Your task to perform on an android device: turn off wifi Image 0: 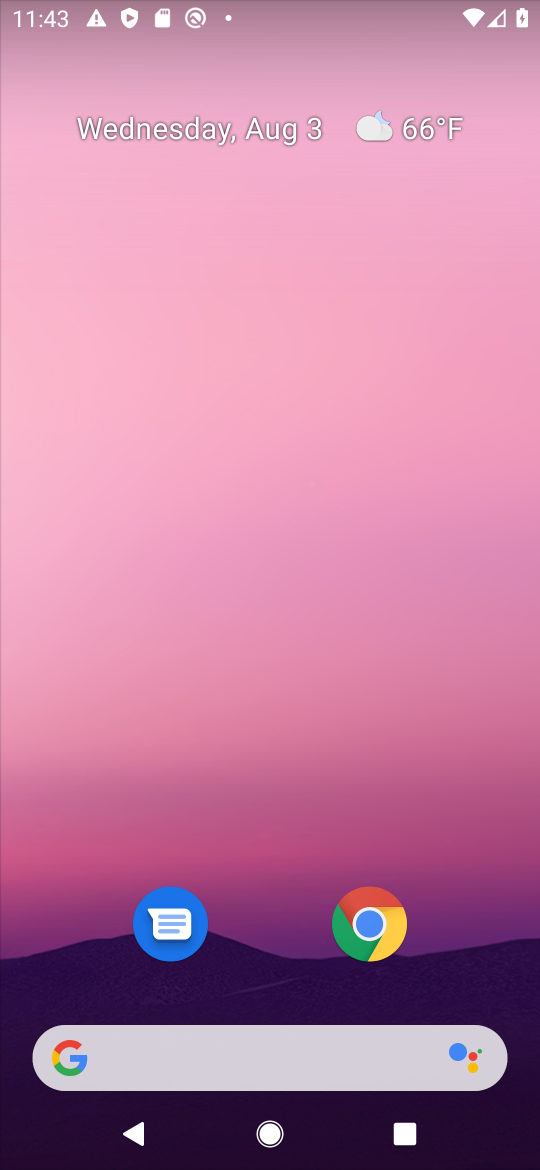
Step 0: drag from (63, 928) to (362, 59)
Your task to perform on an android device: turn off wifi Image 1: 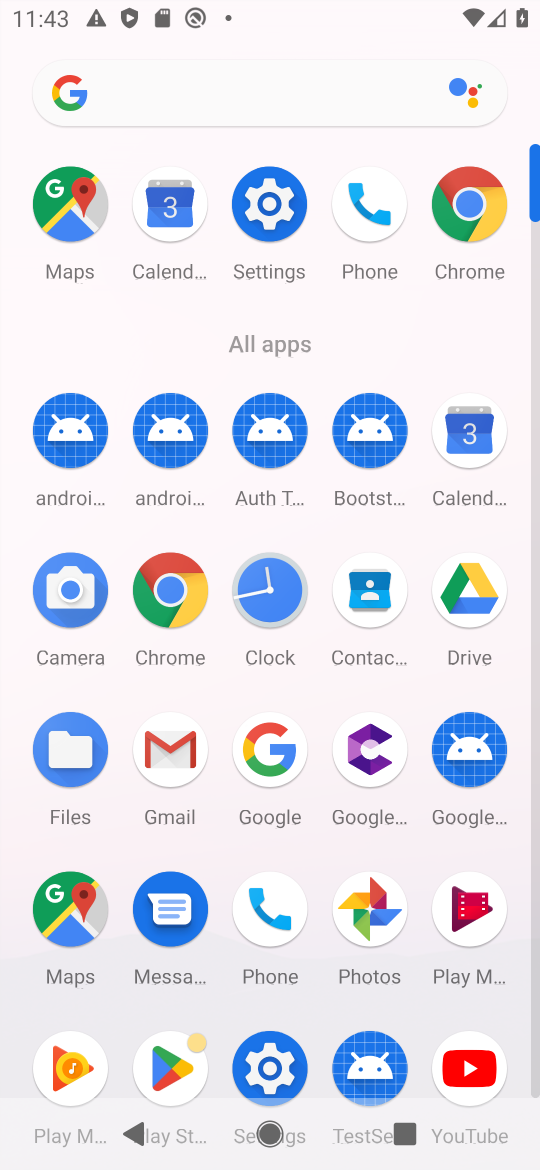
Step 1: click (256, 1058)
Your task to perform on an android device: turn off wifi Image 2: 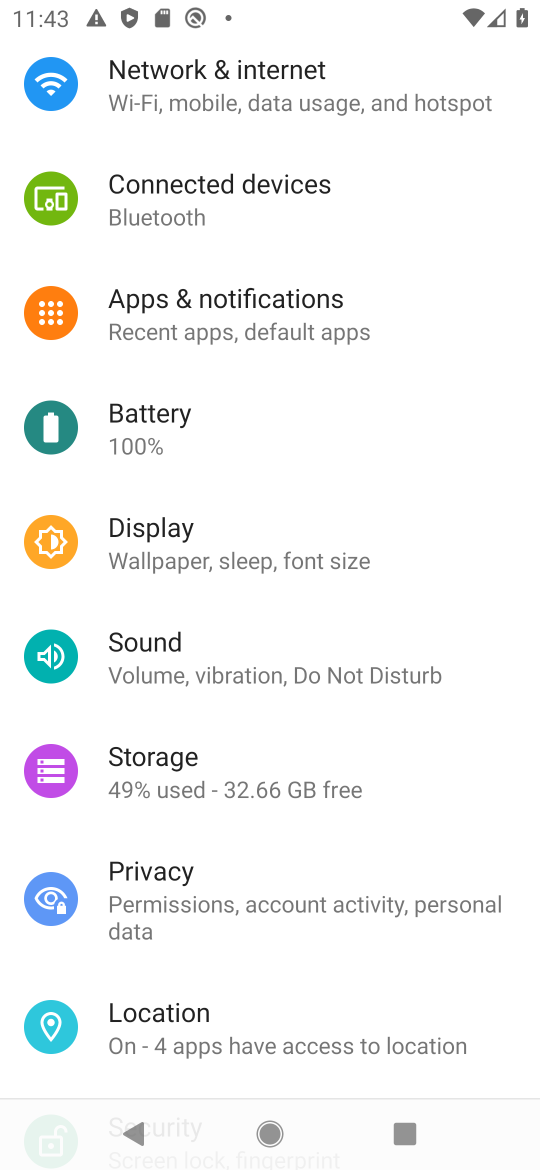
Step 2: click (193, 77)
Your task to perform on an android device: turn off wifi Image 3: 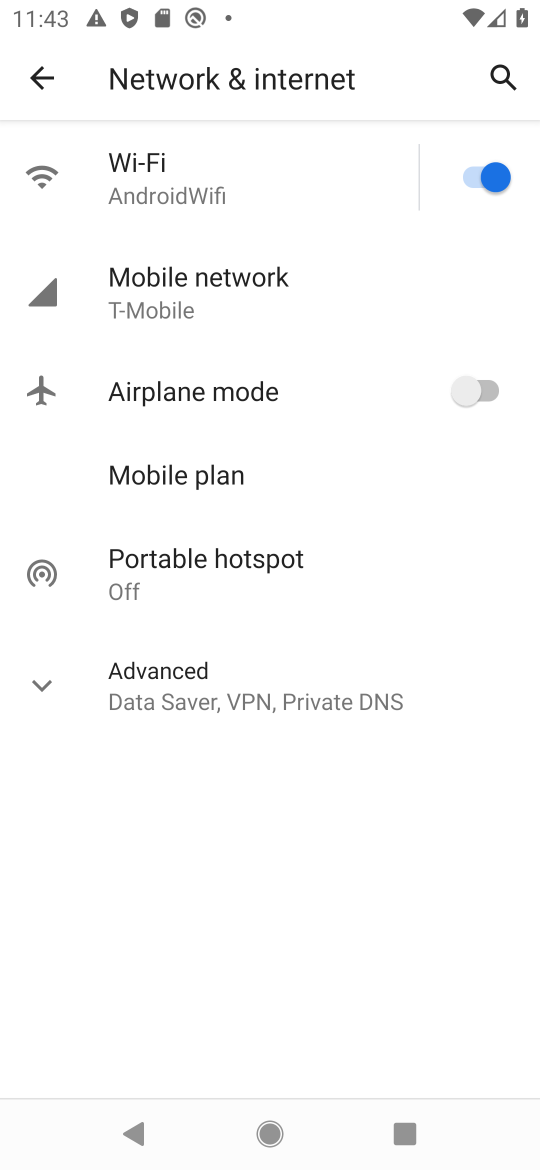
Step 3: click (485, 183)
Your task to perform on an android device: turn off wifi Image 4: 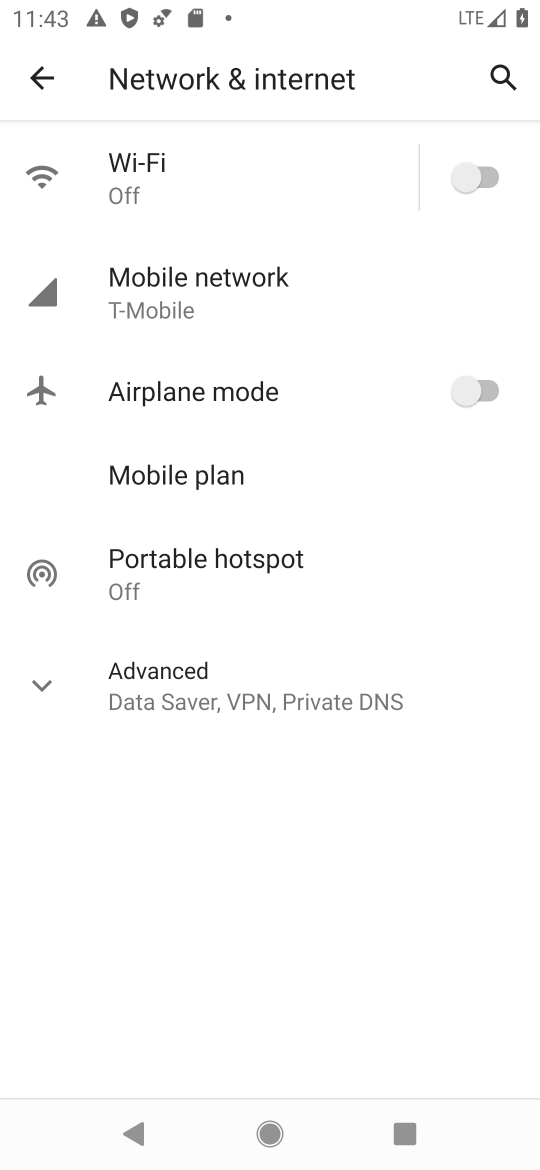
Step 4: task complete